Your task to perform on an android device: create a new album in the google photos Image 0: 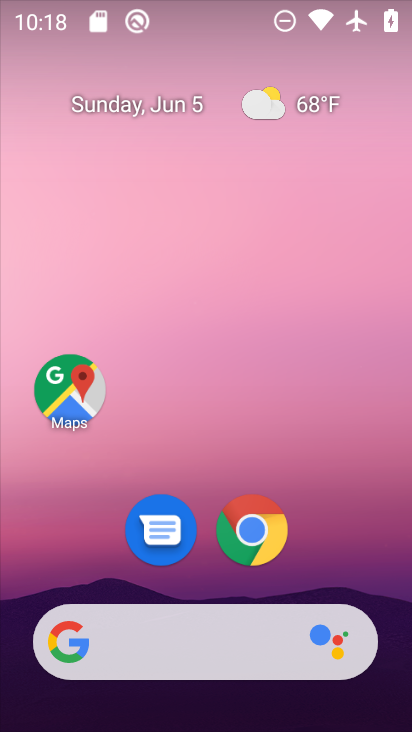
Step 0: drag from (396, 627) to (295, 53)
Your task to perform on an android device: create a new album in the google photos Image 1: 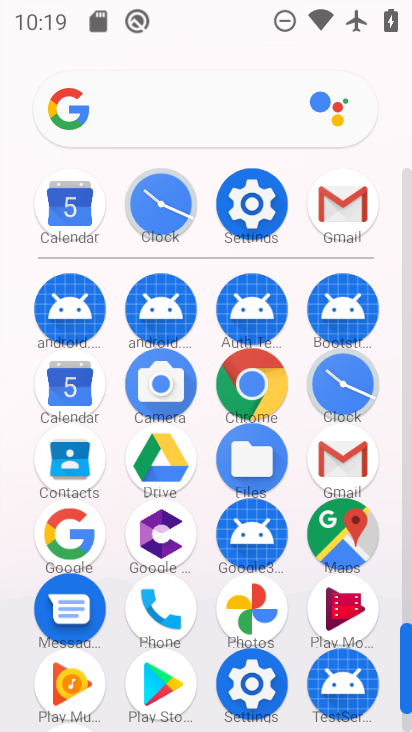
Step 1: click (254, 604)
Your task to perform on an android device: create a new album in the google photos Image 2: 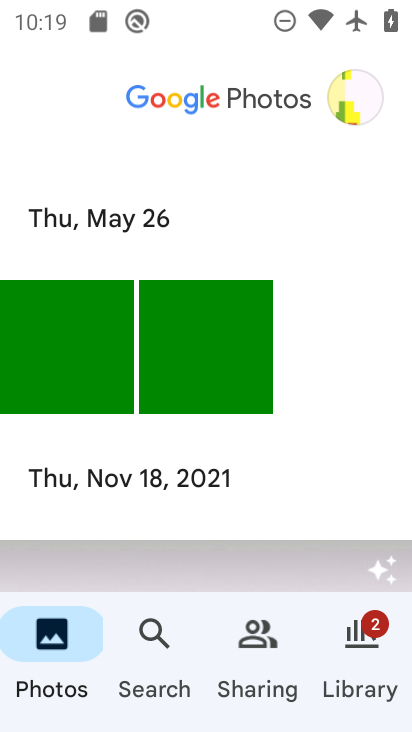
Step 2: click (356, 636)
Your task to perform on an android device: create a new album in the google photos Image 3: 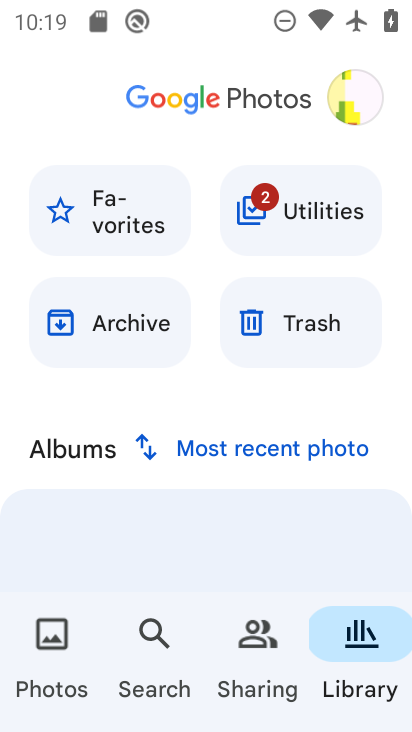
Step 3: drag from (194, 554) to (173, 109)
Your task to perform on an android device: create a new album in the google photos Image 4: 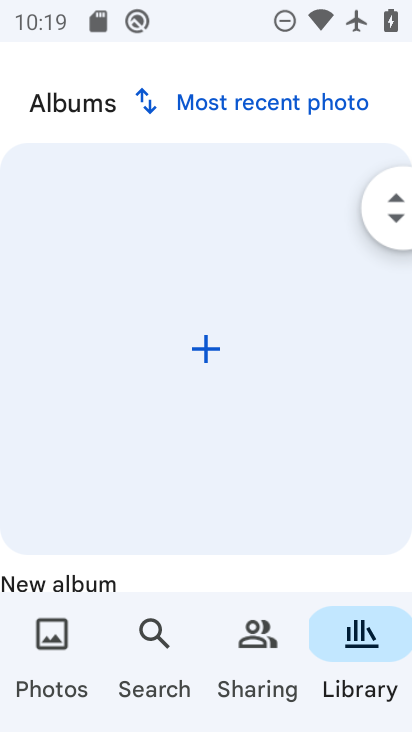
Step 4: click (209, 353)
Your task to perform on an android device: create a new album in the google photos Image 5: 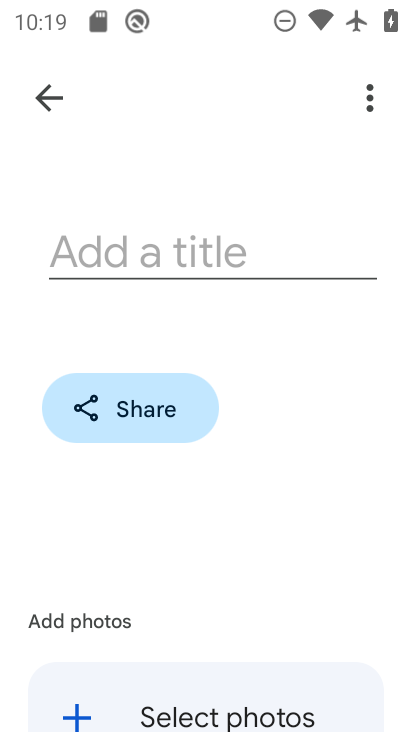
Step 5: click (146, 256)
Your task to perform on an android device: create a new album in the google photos Image 6: 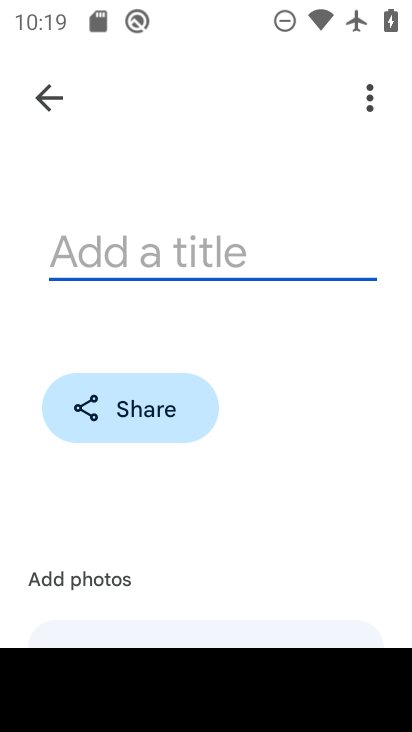
Step 6: type "tyrgfnn"
Your task to perform on an android device: create a new album in the google photos Image 7: 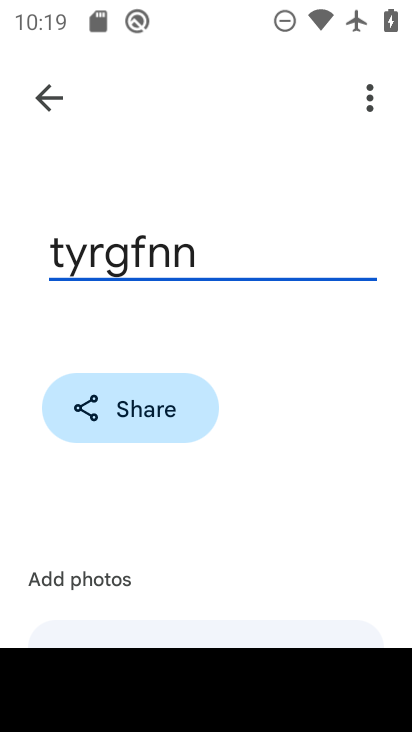
Step 7: drag from (292, 556) to (222, 103)
Your task to perform on an android device: create a new album in the google photos Image 8: 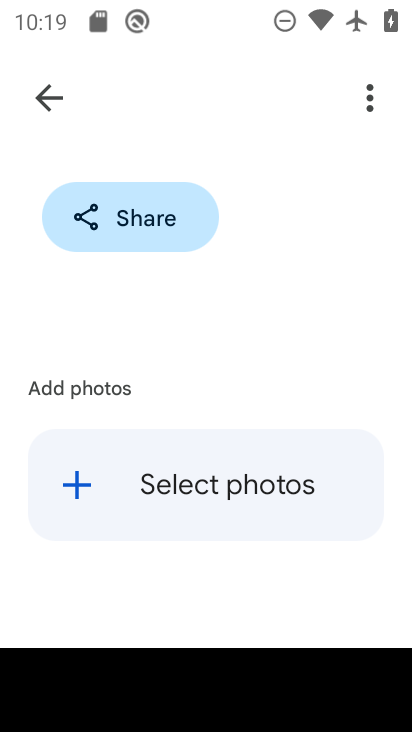
Step 8: click (76, 488)
Your task to perform on an android device: create a new album in the google photos Image 9: 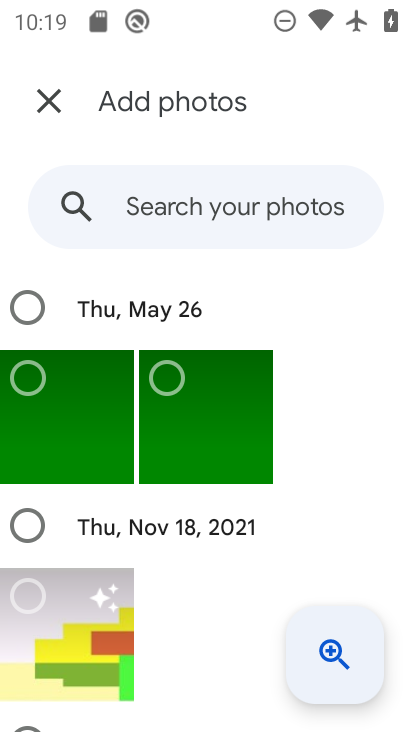
Step 9: click (27, 385)
Your task to perform on an android device: create a new album in the google photos Image 10: 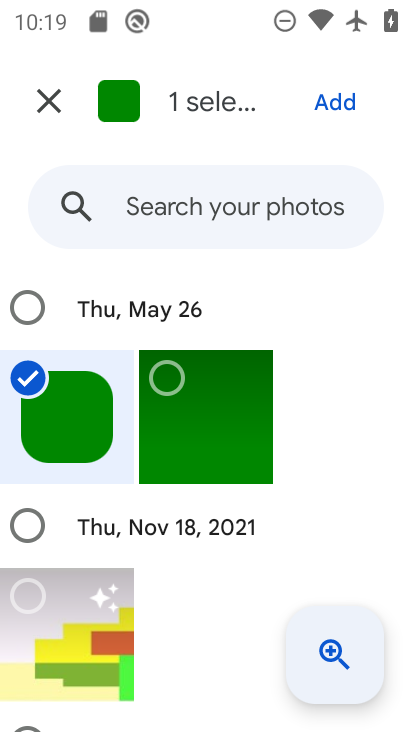
Step 10: click (34, 598)
Your task to perform on an android device: create a new album in the google photos Image 11: 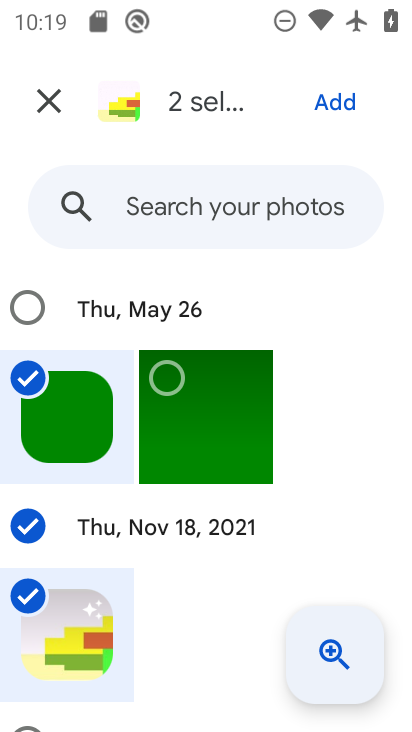
Step 11: click (341, 104)
Your task to perform on an android device: create a new album in the google photos Image 12: 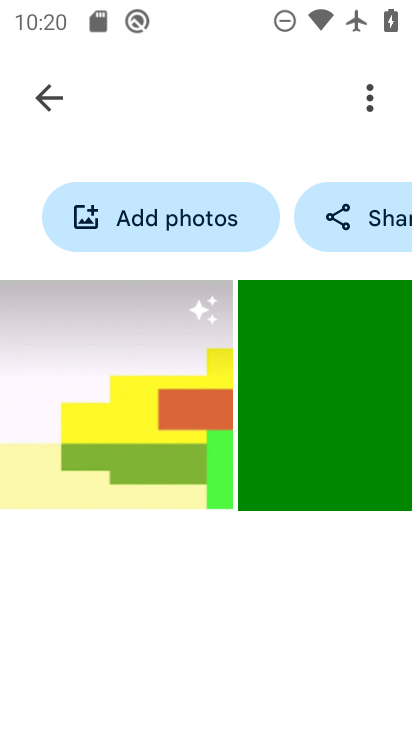
Step 12: task complete